Your task to perform on an android device: change the clock display to analog Image 0: 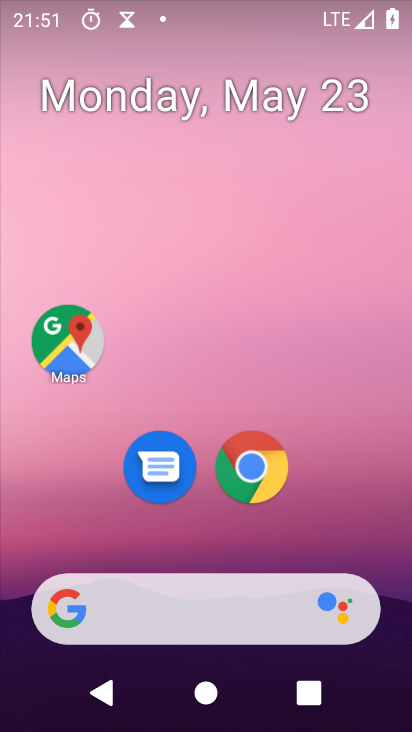
Step 0: drag from (274, 525) to (199, 43)
Your task to perform on an android device: change the clock display to analog Image 1: 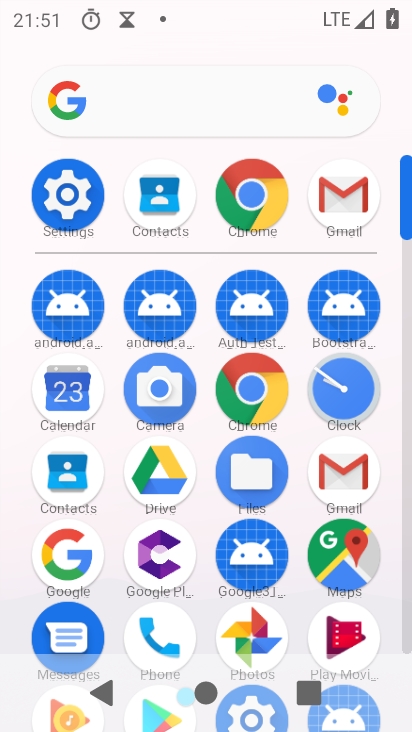
Step 1: click (342, 395)
Your task to perform on an android device: change the clock display to analog Image 2: 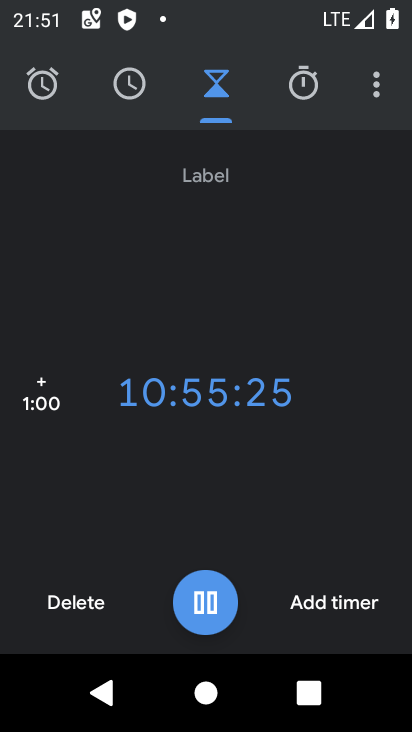
Step 2: click (372, 86)
Your task to perform on an android device: change the clock display to analog Image 3: 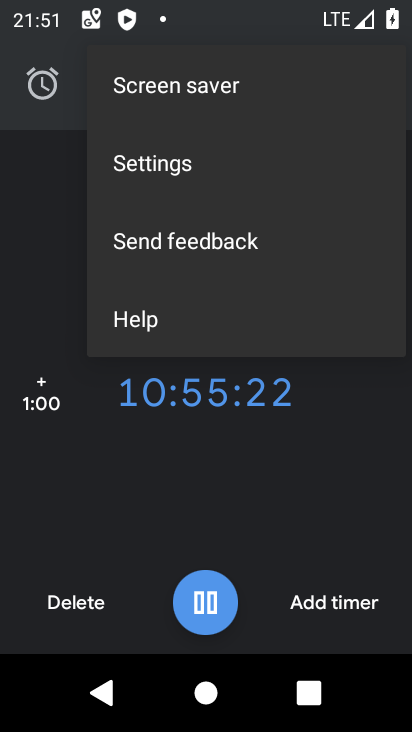
Step 3: click (168, 173)
Your task to perform on an android device: change the clock display to analog Image 4: 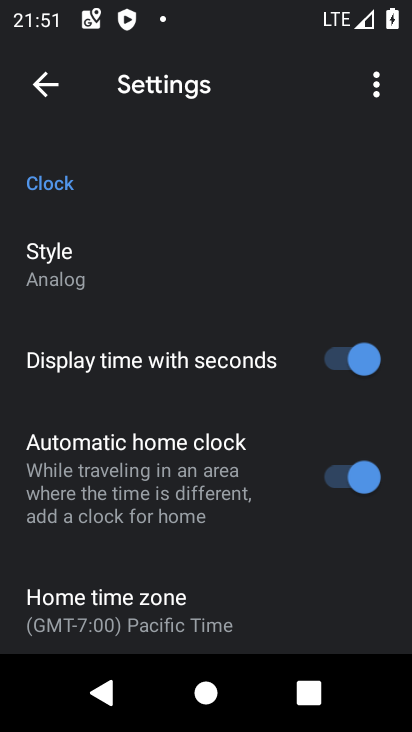
Step 4: click (123, 256)
Your task to perform on an android device: change the clock display to analog Image 5: 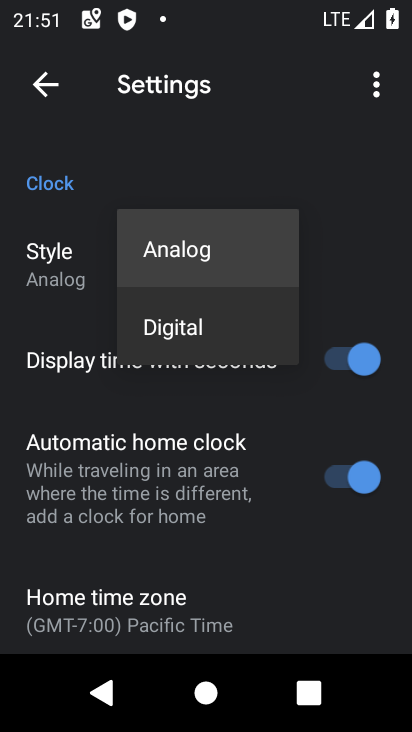
Step 5: task complete